Your task to perform on an android device: Open settings on Google Maps Image 0: 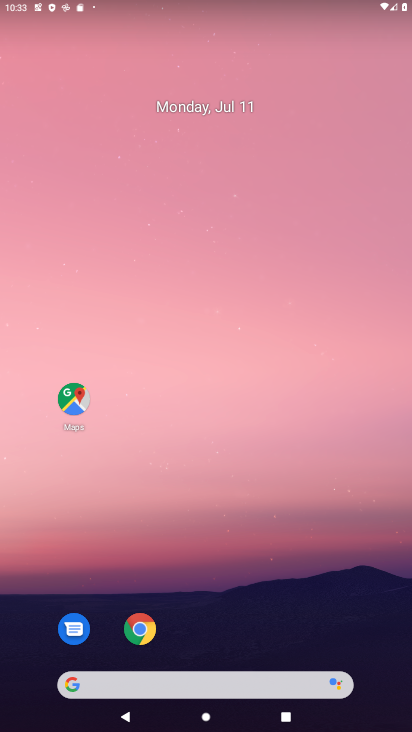
Step 0: click (67, 384)
Your task to perform on an android device: Open settings on Google Maps Image 1: 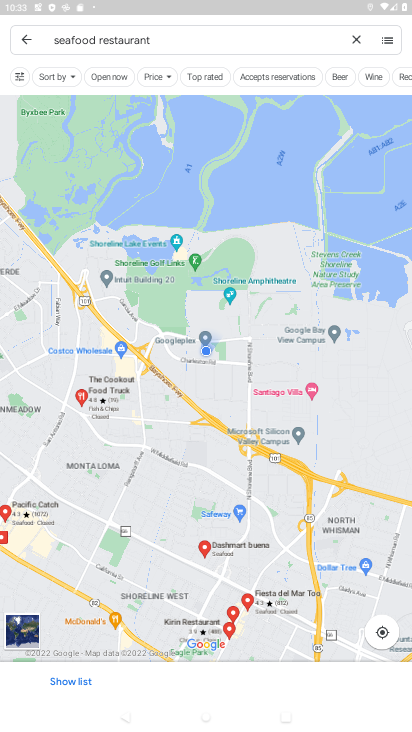
Step 1: click (27, 38)
Your task to perform on an android device: Open settings on Google Maps Image 2: 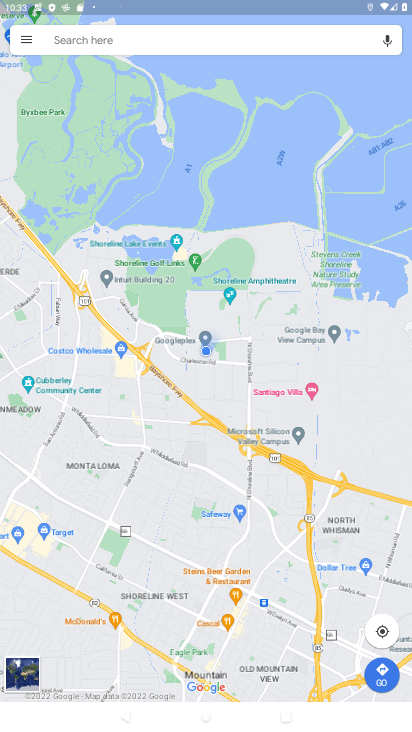
Step 2: click (27, 38)
Your task to perform on an android device: Open settings on Google Maps Image 3: 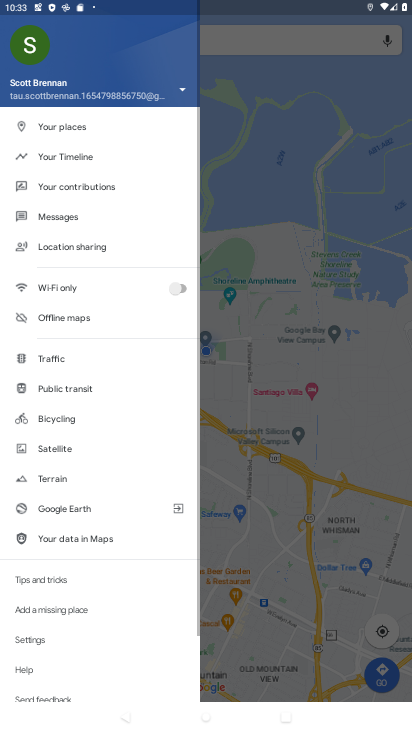
Step 3: click (81, 644)
Your task to perform on an android device: Open settings on Google Maps Image 4: 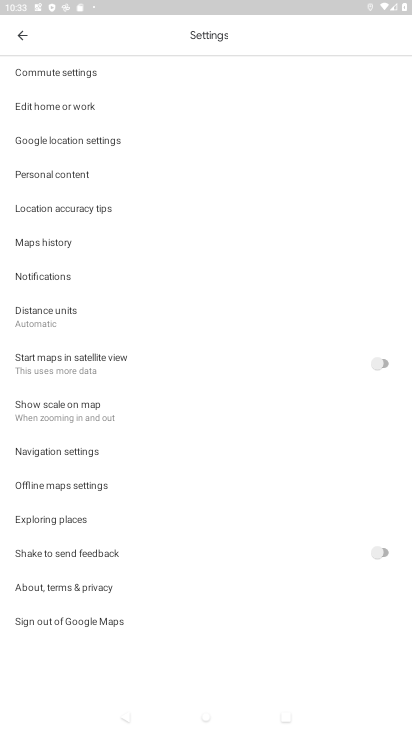
Step 4: task complete